Your task to perform on an android device: What is the news today? Image 0: 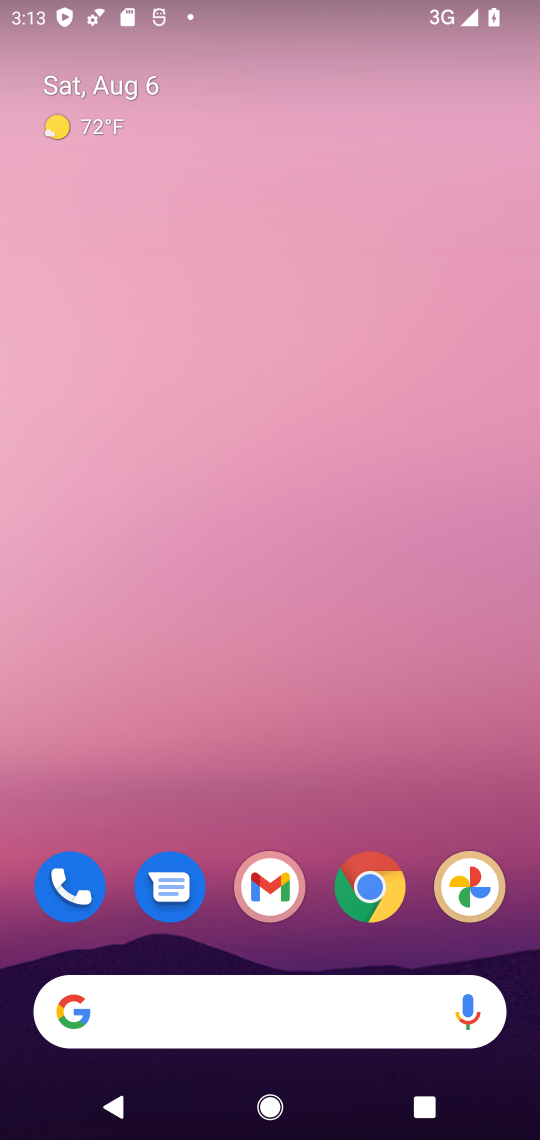
Step 0: press home button
Your task to perform on an android device: What is the news today? Image 1: 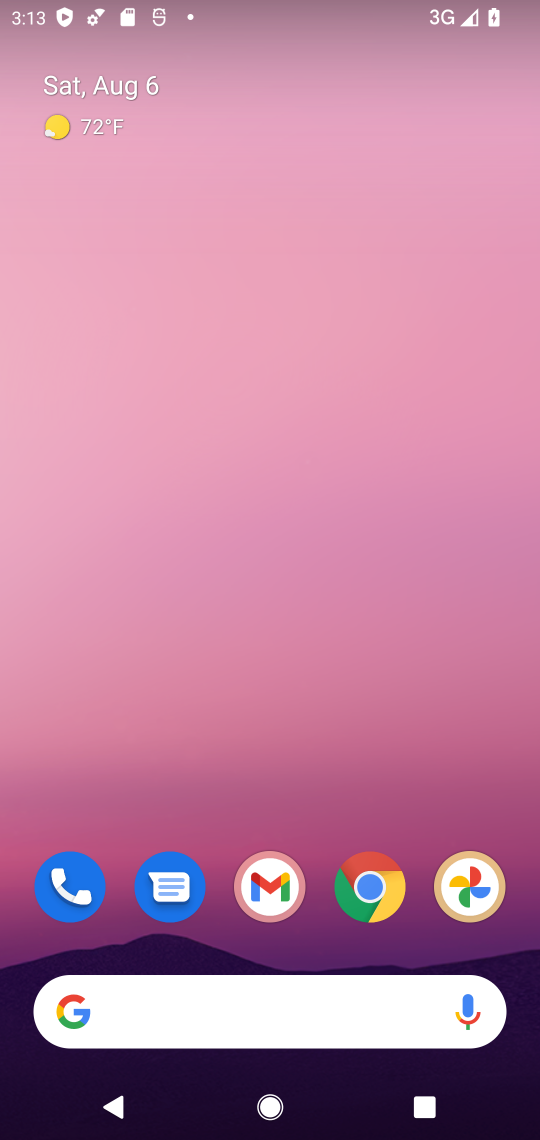
Step 1: drag from (7, 437) to (538, 605)
Your task to perform on an android device: What is the news today? Image 2: 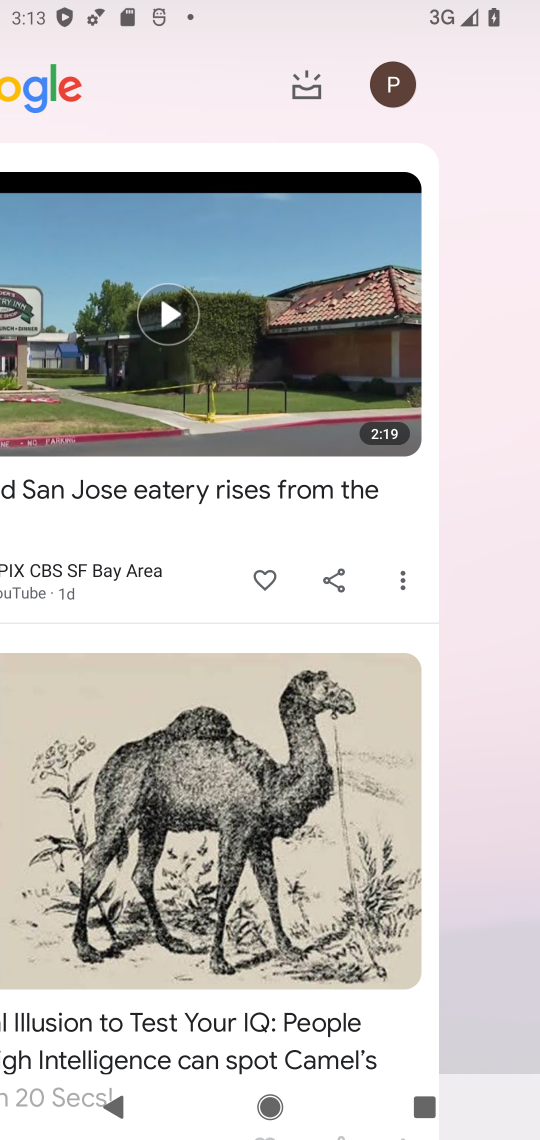
Step 2: click (453, 612)
Your task to perform on an android device: What is the news today? Image 3: 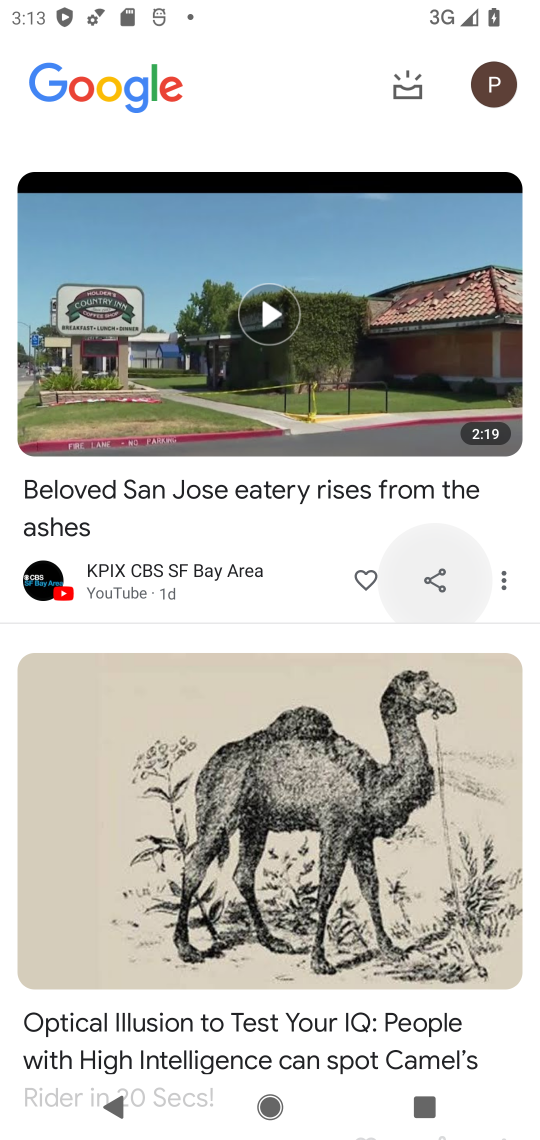
Step 3: task complete